Your task to perform on an android device: open app "Speedtest by Ookla" (install if not already installed) Image 0: 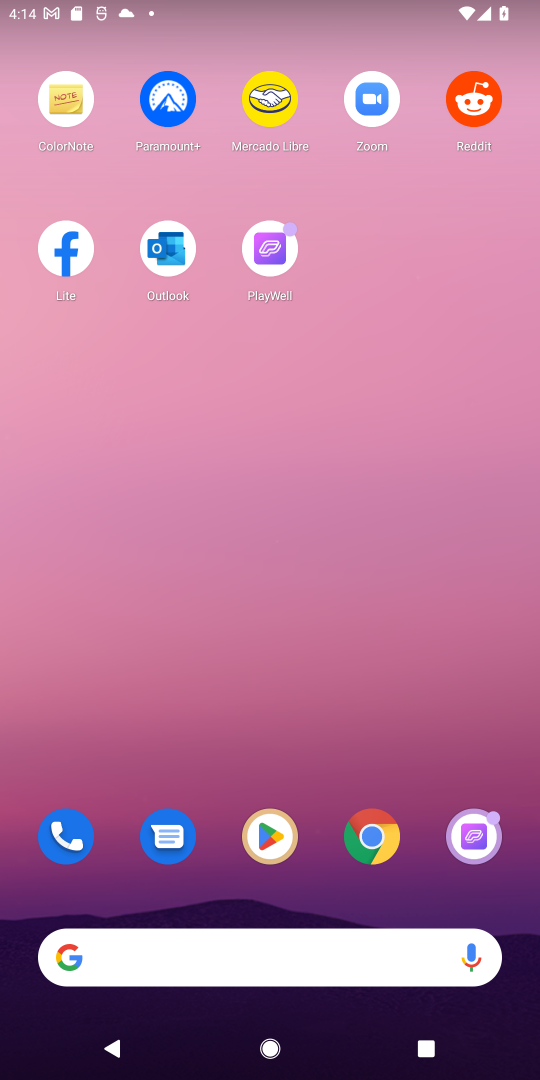
Step 0: drag from (289, 925) to (354, 396)
Your task to perform on an android device: open app "Speedtest by Ookla" (install if not already installed) Image 1: 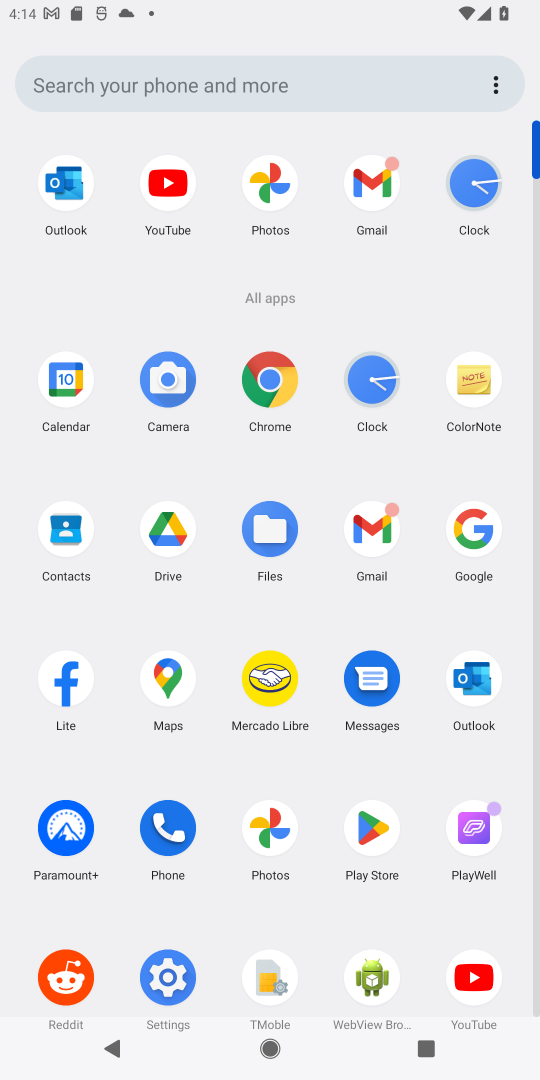
Step 1: click (382, 814)
Your task to perform on an android device: open app "Speedtest by Ookla" (install if not already installed) Image 2: 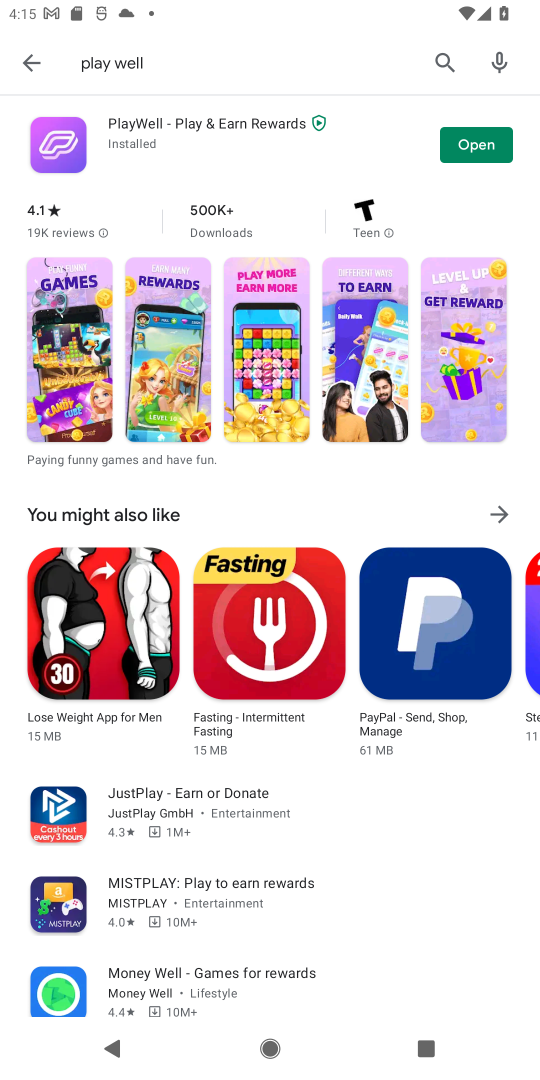
Step 2: click (27, 52)
Your task to perform on an android device: open app "Speedtest by Ookla" (install if not already installed) Image 3: 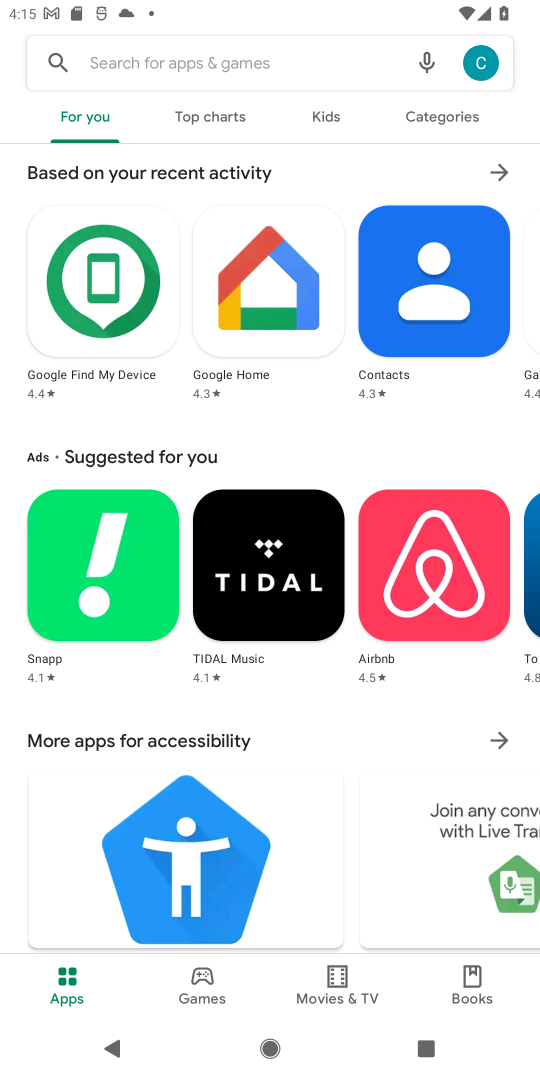
Step 3: click (257, 56)
Your task to perform on an android device: open app "Speedtest by Ookla" (install if not already installed) Image 4: 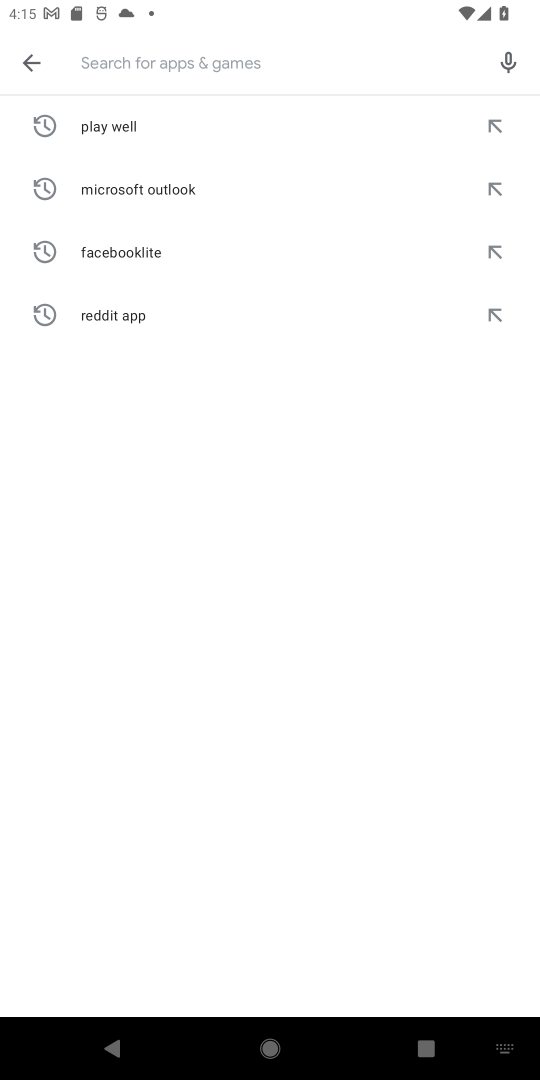
Step 4: type "Speedtest by Ookla "
Your task to perform on an android device: open app "Speedtest by Ookla" (install if not already installed) Image 5: 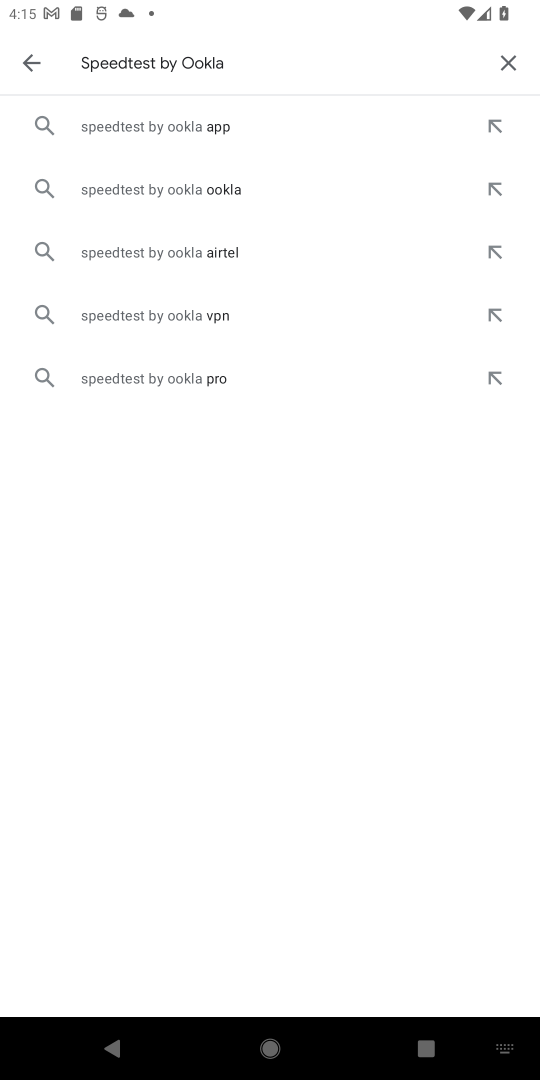
Step 5: click (209, 121)
Your task to perform on an android device: open app "Speedtest by Ookla" (install if not already installed) Image 6: 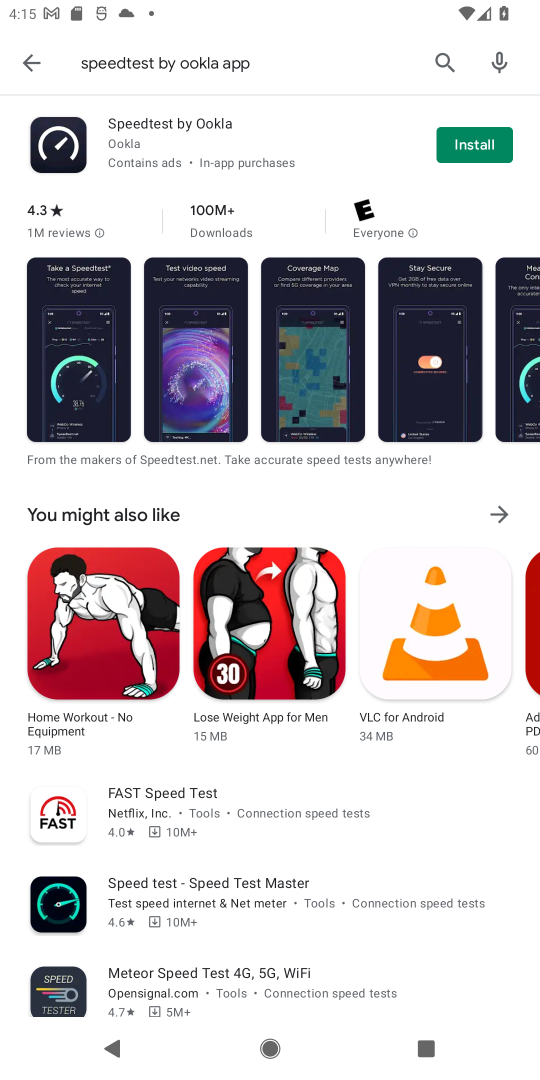
Step 6: click (458, 135)
Your task to perform on an android device: open app "Speedtest by Ookla" (install if not already installed) Image 7: 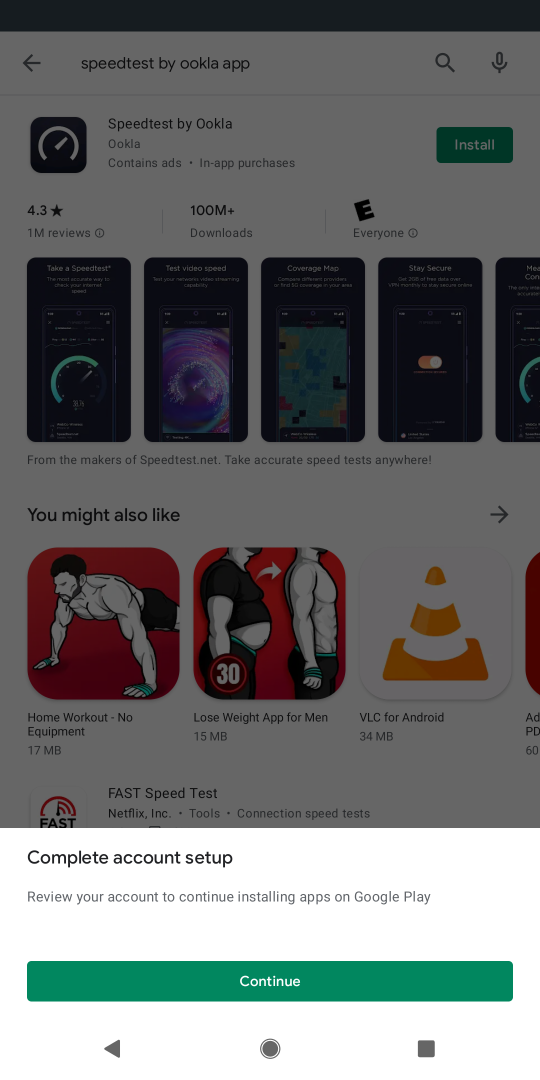
Step 7: click (306, 980)
Your task to perform on an android device: open app "Speedtest by Ookla" (install if not already installed) Image 8: 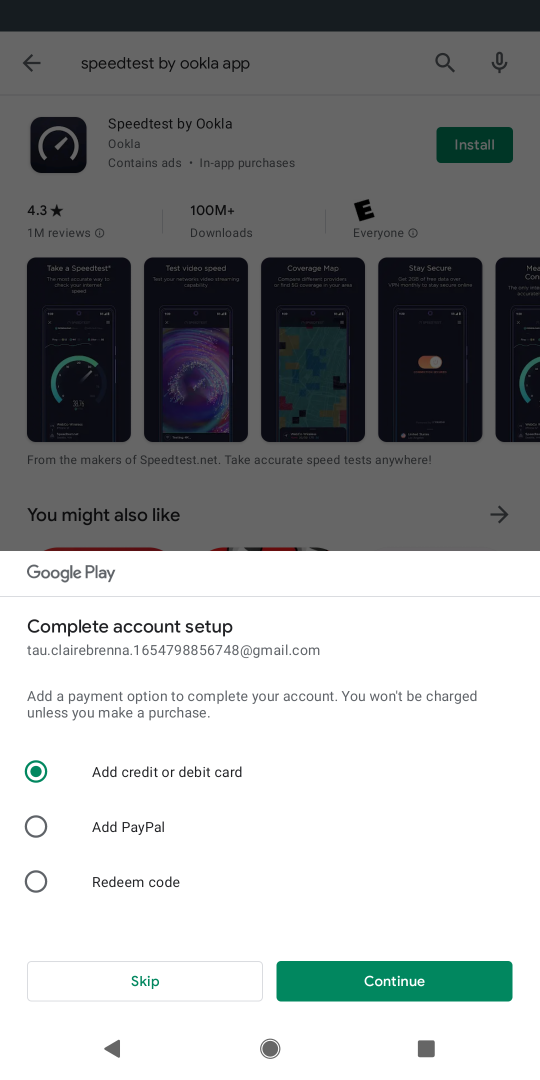
Step 8: task complete